Your task to perform on an android device: Open Google Chrome and click the shortcut for Amazon.com Image 0: 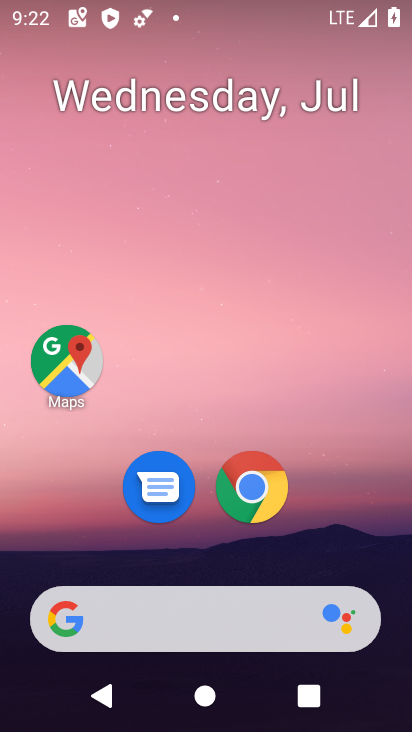
Step 0: drag from (230, 562) to (149, 70)
Your task to perform on an android device: Open Google Chrome and click the shortcut for Amazon.com Image 1: 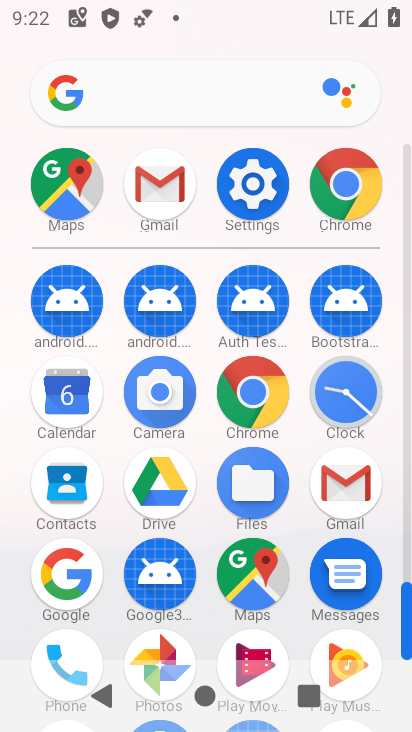
Step 1: click (312, 211)
Your task to perform on an android device: Open Google Chrome and click the shortcut for Amazon.com Image 2: 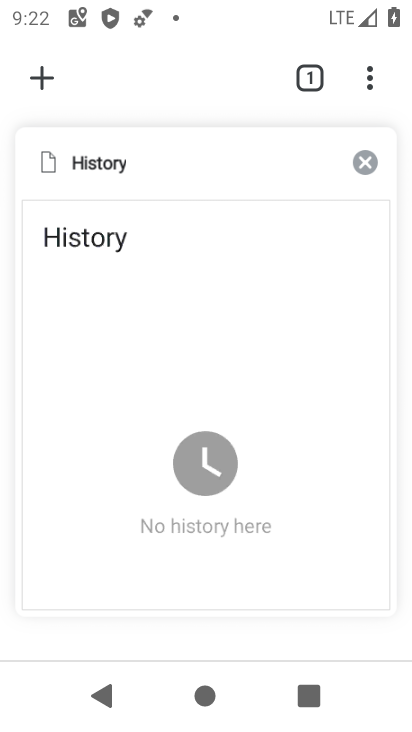
Step 2: click (38, 81)
Your task to perform on an android device: Open Google Chrome and click the shortcut for Amazon.com Image 3: 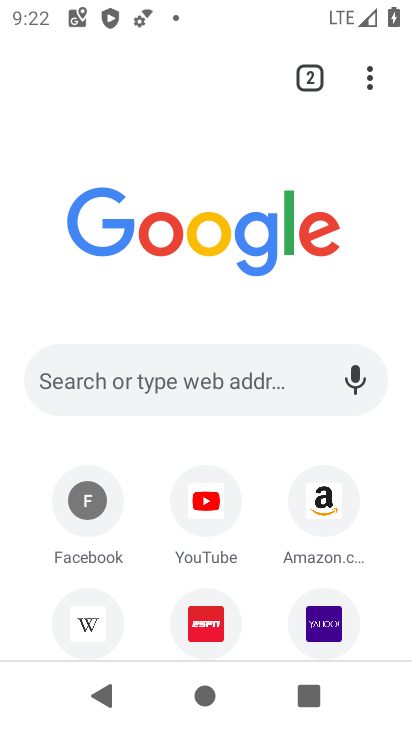
Step 3: click (306, 494)
Your task to perform on an android device: Open Google Chrome and click the shortcut for Amazon.com Image 4: 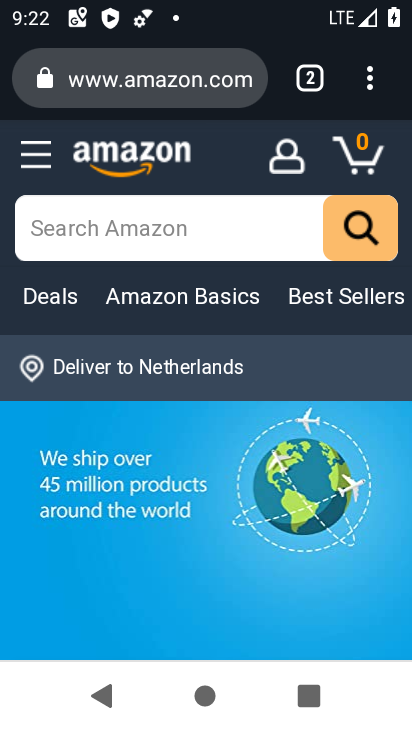
Step 4: task complete